Your task to perform on an android device: toggle airplane mode Image 0: 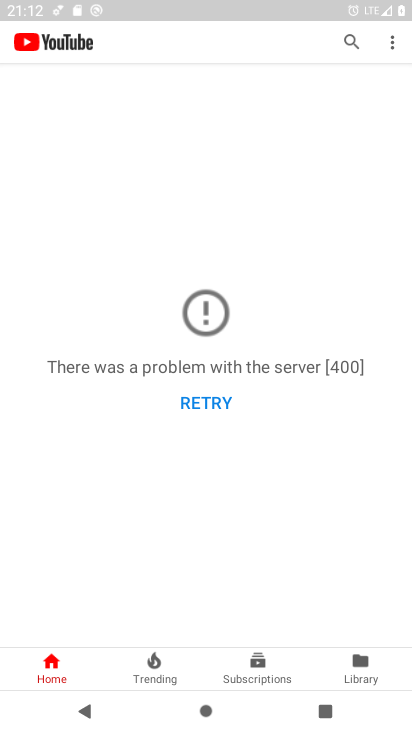
Step 0: press home button
Your task to perform on an android device: toggle airplane mode Image 1: 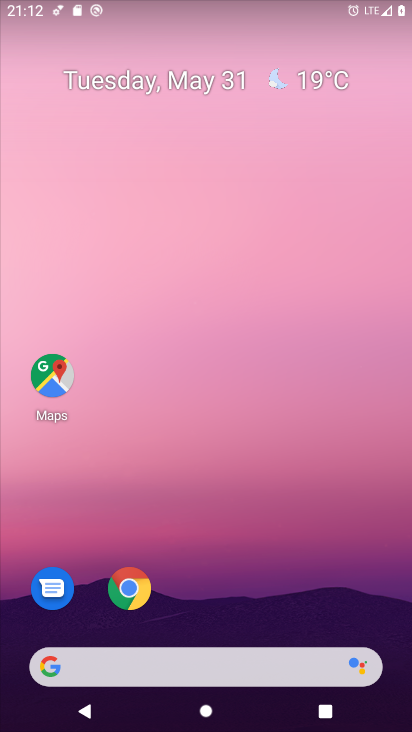
Step 1: drag from (176, 676) to (242, 36)
Your task to perform on an android device: toggle airplane mode Image 2: 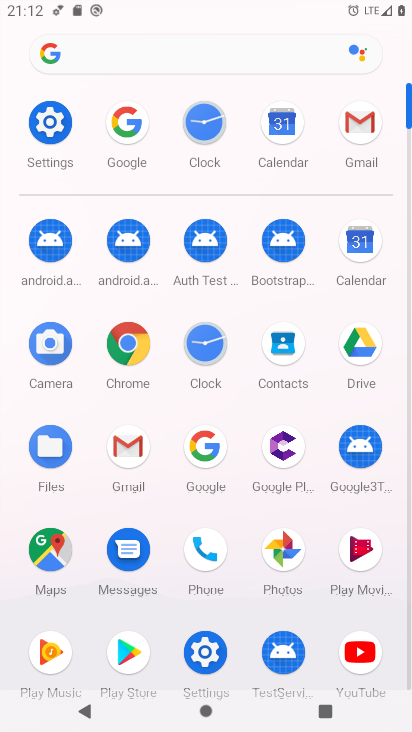
Step 2: click (53, 118)
Your task to perform on an android device: toggle airplane mode Image 3: 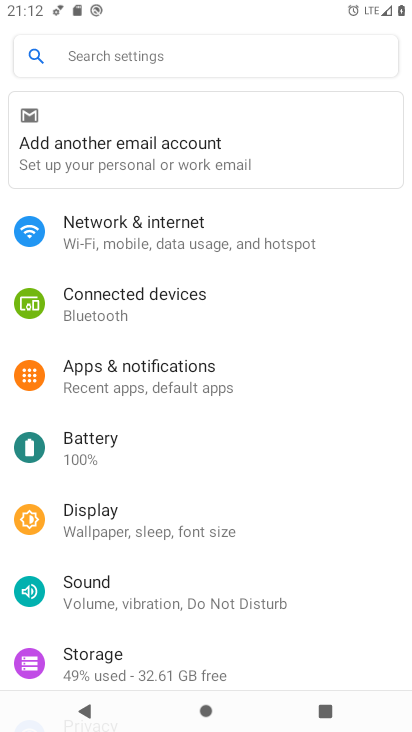
Step 3: click (153, 228)
Your task to perform on an android device: toggle airplane mode Image 4: 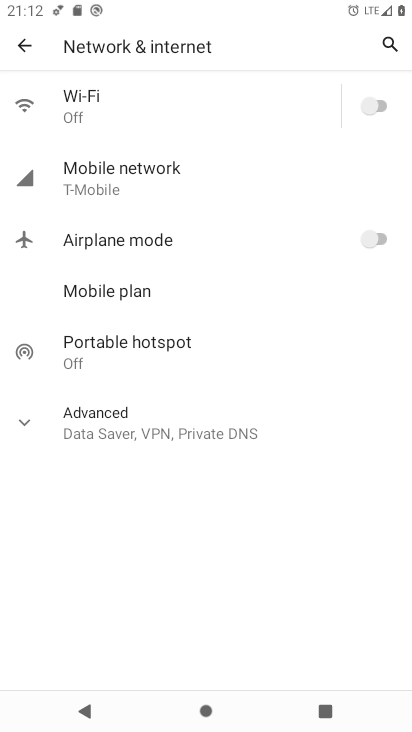
Step 4: click (380, 240)
Your task to perform on an android device: toggle airplane mode Image 5: 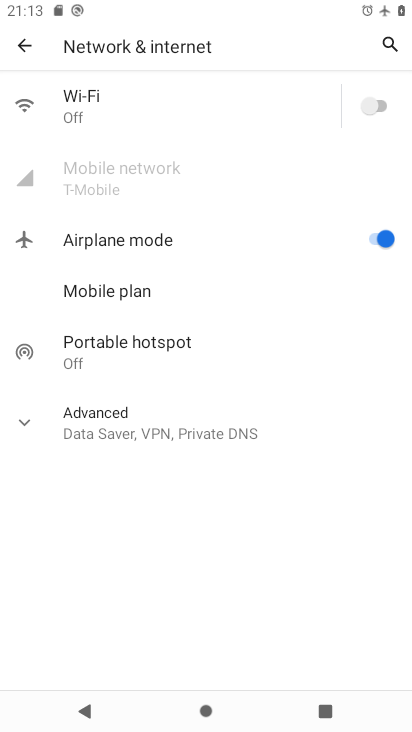
Step 5: task complete